Your task to perform on an android device: Open Chrome and go to settings Image 0: 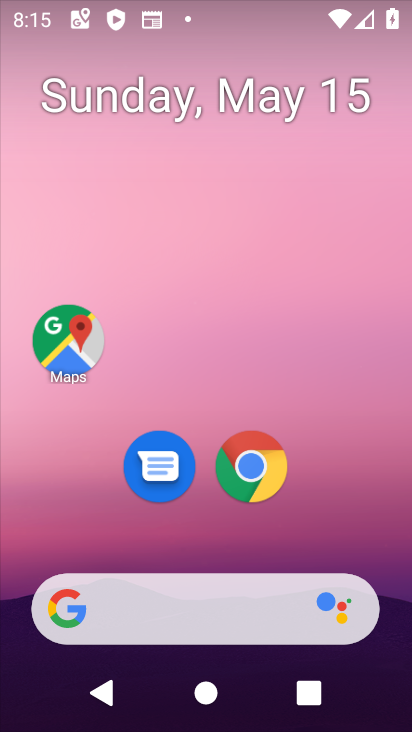
Step 0: click (258, 475)
Your task to perform on an android device: Open Chrome and go to settings Image 1: 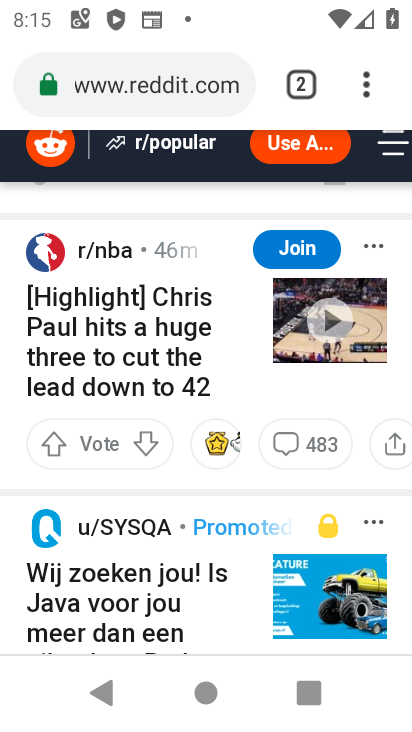
Step 1: click (363, 77)
Your task to perform on an android device: Open Chrome and go to settings Image 2: 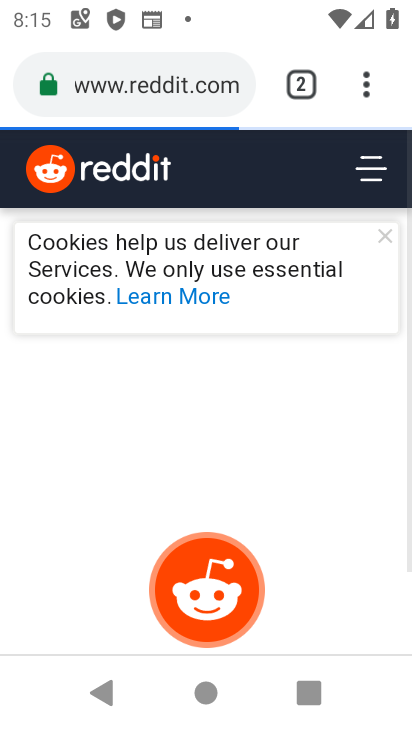
Step 2: task complete